Your task to perform on an android device: Open the calendar app, open the side menu, and click the "Day" option Image 0: 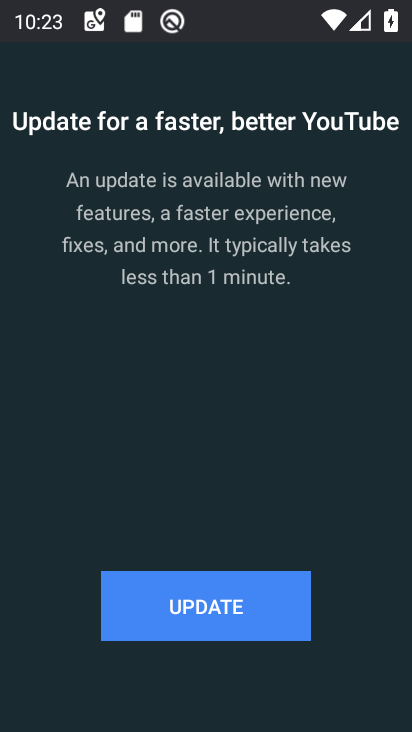
Step 0: press home button
Your task to perform on an android device: Open the calendar app, open the side menu, and click the "Day" option Image 1: 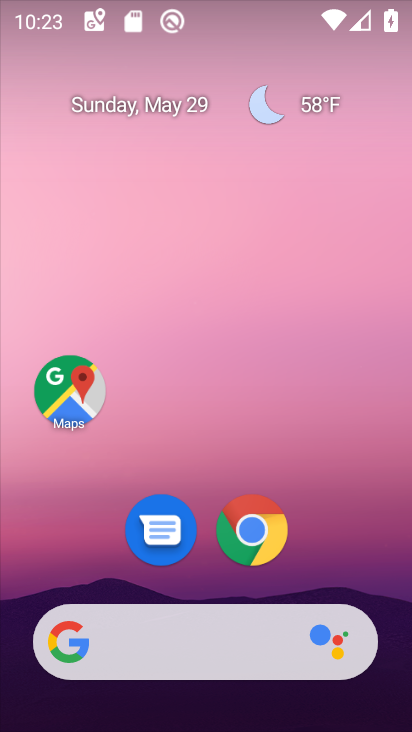
Step 1: drag from (242, 602) to (334, 94)
Your task to perform on an android device: Open the calendar app, open the side menu, and click the "Day" option Image 2: 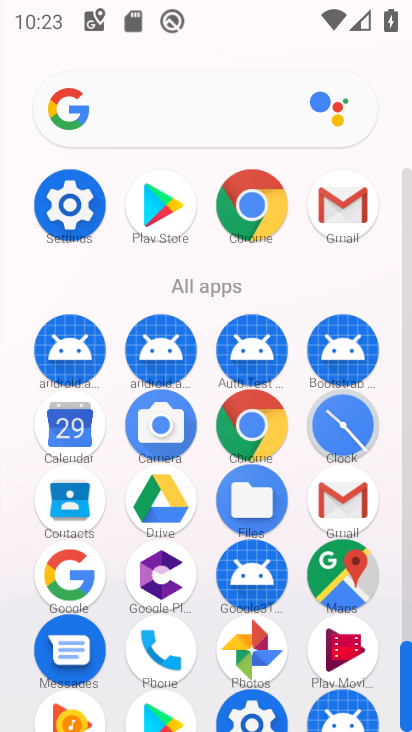
Step 2: click (59, 426)
Your task to perform on an android device: Open the calendar app, open the side menu, and click the "Day" option Image 3: 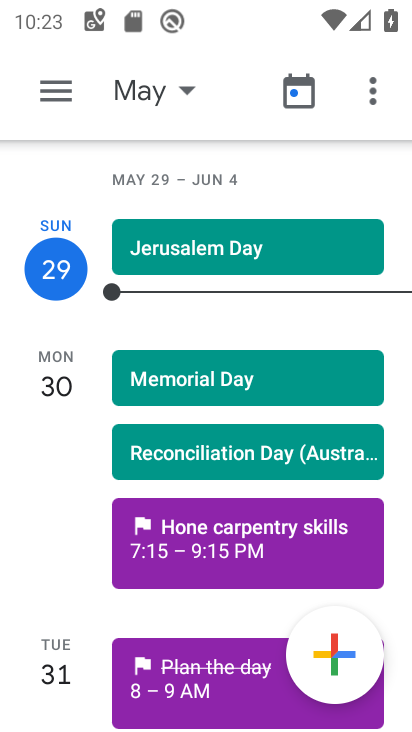
Step 3: click (58, 84)
Your task to perform on an android device: Open the calendar app, open the side menu, and click the "Day" option Image 4: 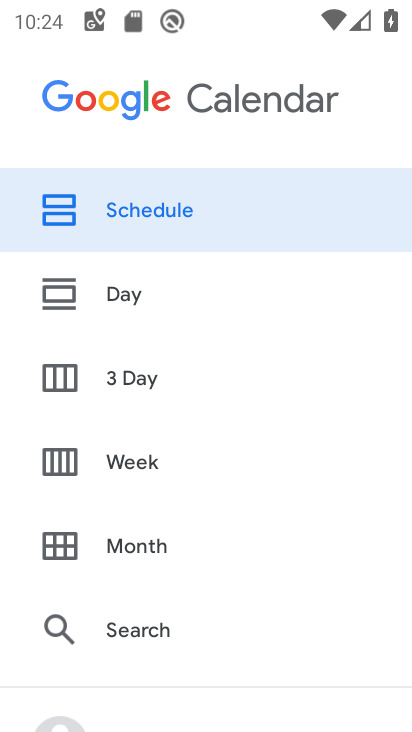
Step 4: click (123, 285)
Your task to perform on an android device: Open the calendar app, open the side menu, and click the "Day" option Image 5: 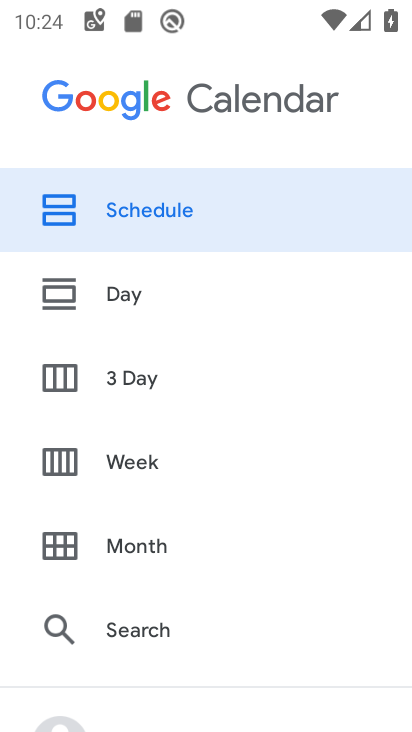
Step 5: click (213, 274)
Your task to perform on an android device: Open the calendar app, open the side menu, and click the "Day" option Image 6: 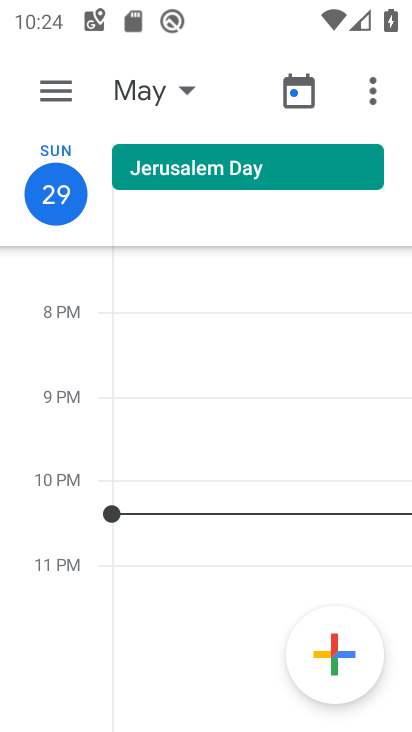
Step 6: task complete